Your task to perform on an android device: turn off sleep mode Image 0: 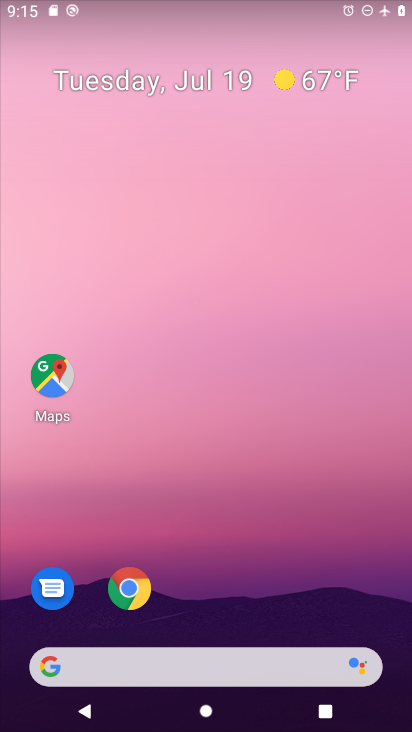
Step 0: drag from (360, 590) to (372, 78)
Your task to perform on an android device: turn off sleep mode Image 1: 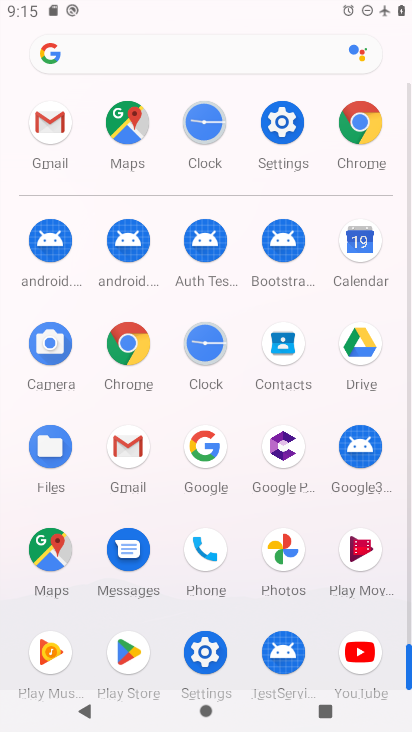
Step 1: click (289, 129)
Your task to perform on an android device: turn off sleep mode Image 2: 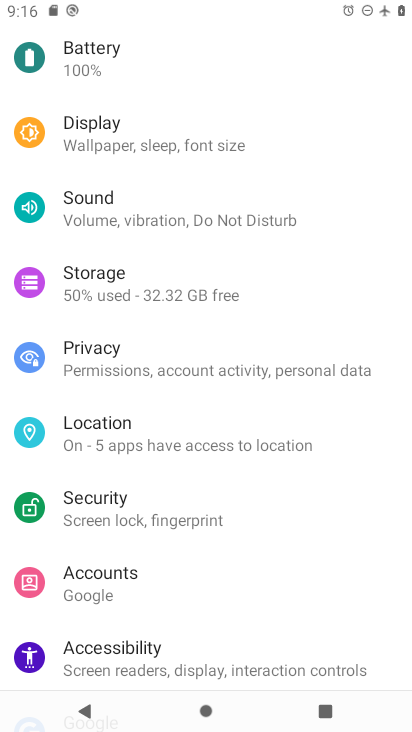
Step 2: drag from (354, 279) to (367, 418)
Your task to perform on an android device: turn off sleep mode Image 3: 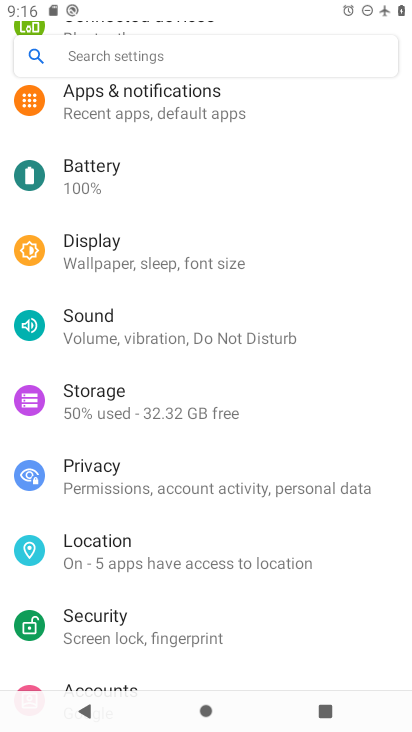
Step 3: drag from (352, 242) to (370, 381)
Your task to perform on an android device: turn off sleep mode Image 4: 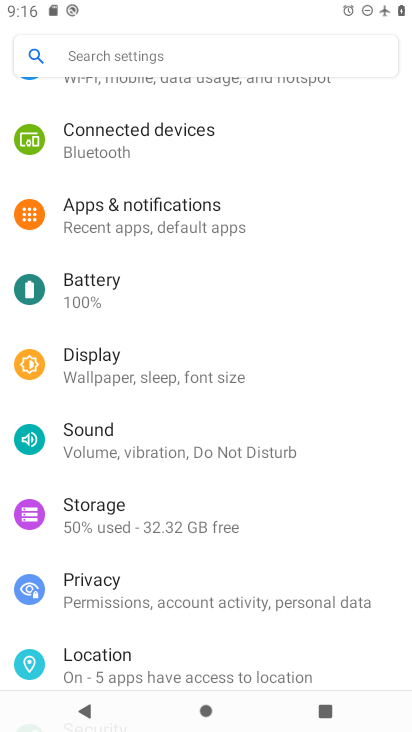
Step 4: drag from (354, 225) to (377, 371)
Your task to perform on an android device: turn off sleep mode Image 5: 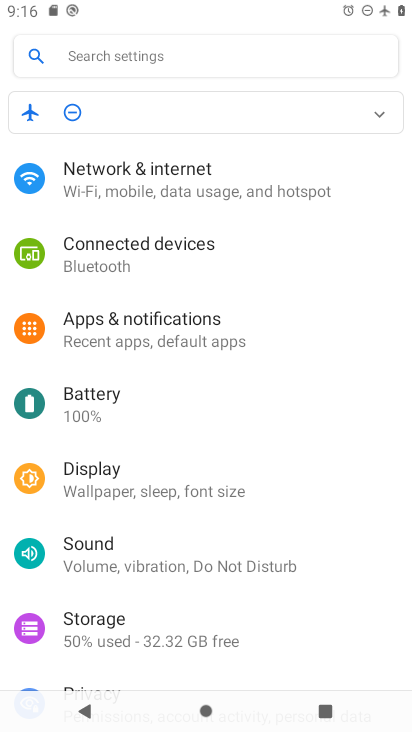
Step 5: drag from (355, 253) to (368, 428)
Your task to perform on an android device: turn off sleep mode Image 6: 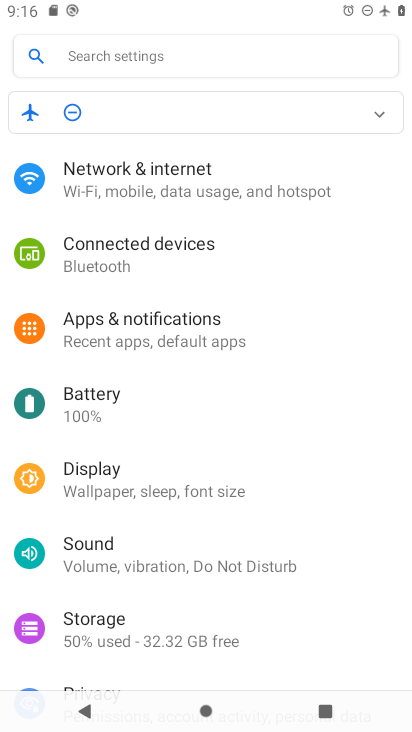
Step 6: drag from (350, 462) to (345, 325)
Your task to perform on an android device: turn off sleep mode Image 7: 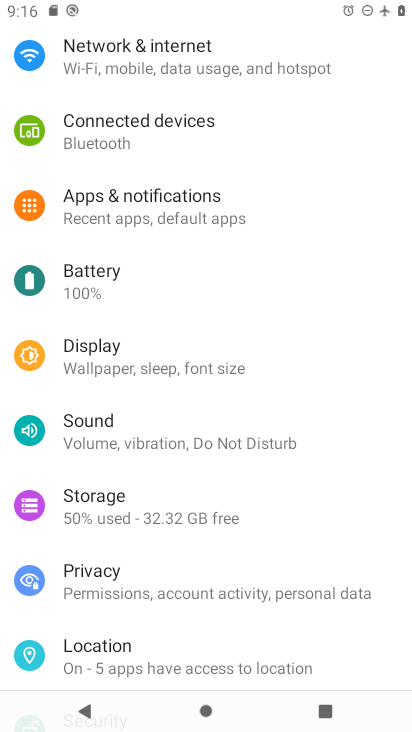
Step 7: click (285, 369)
Your task to perform on an android device: turn off sleep mode Image 8: 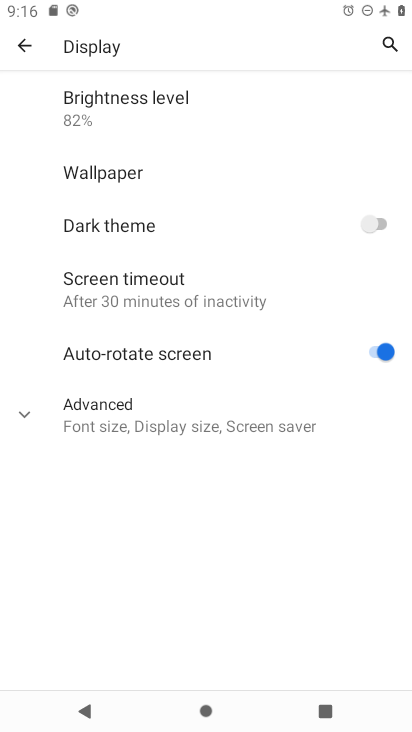
Step 8: click (280, 414)
Your task to perform on an android device: turn off sleep mode Image 9: 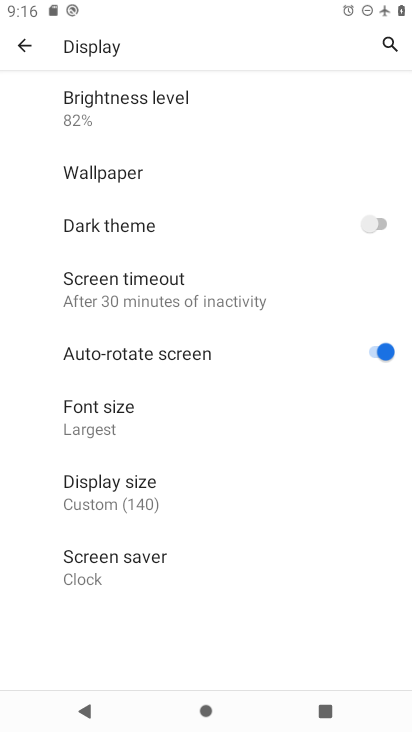
Step 9: task complete